Your task to perform on an android device: set the timer Image 0: 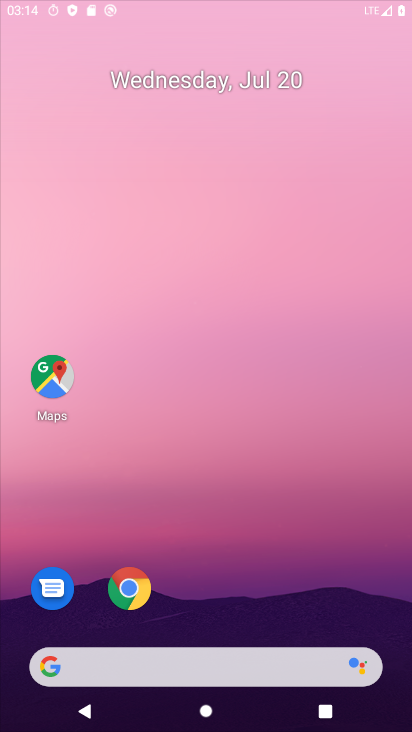
Step 0: drag from (160, 618) to (366, 9)
Your task to perform on an android device: set the timer Image 1: 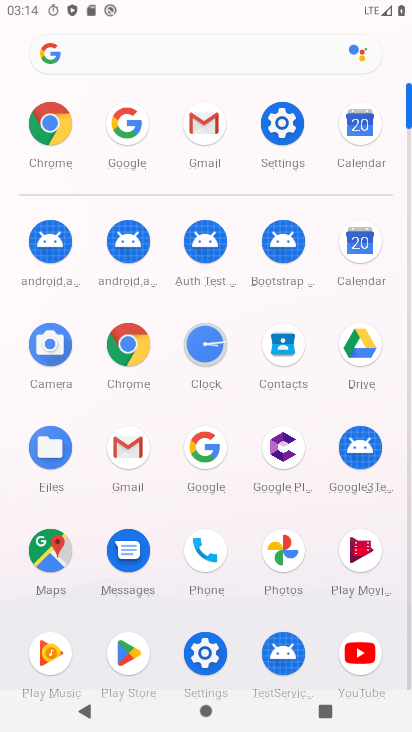
Step 1: click (203, 350)
Your task to perform on an android device: set the timer Image 2: 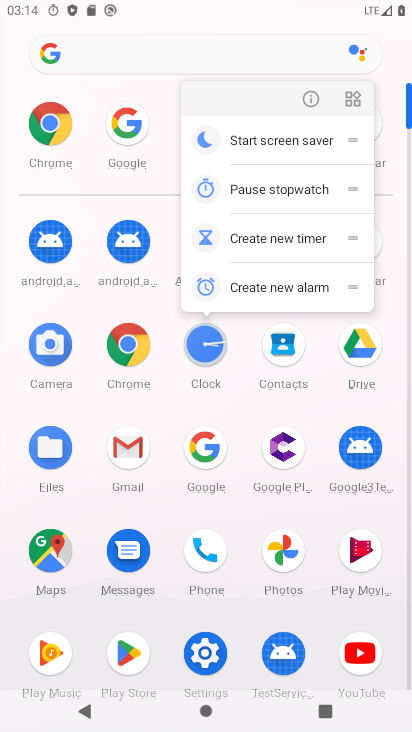
Step 2: click (306, 96)
Your task to perform on an android device: set the timer Image 3: 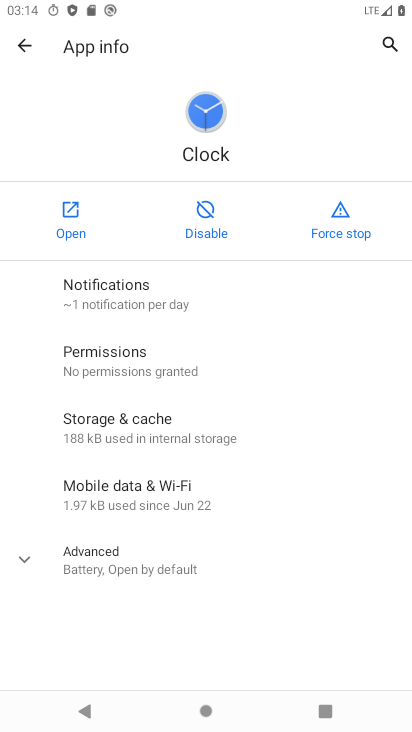
Step 3: click (75, 222)
Your task to perform on an android device: set the timer Image 4: 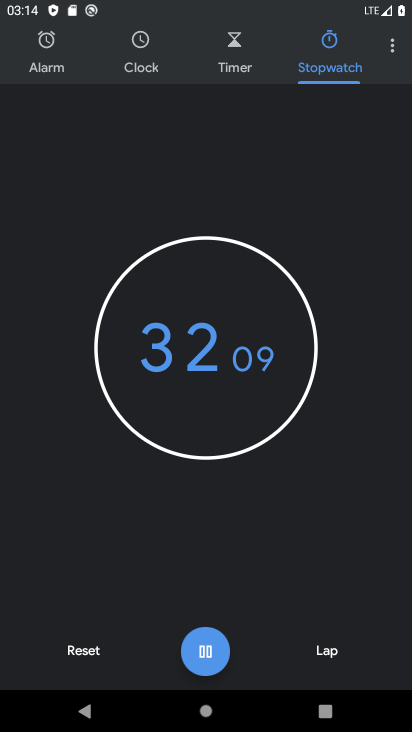
Step 4: click (76, 660)
Your task to perform on an android device: set the timer Image 5: 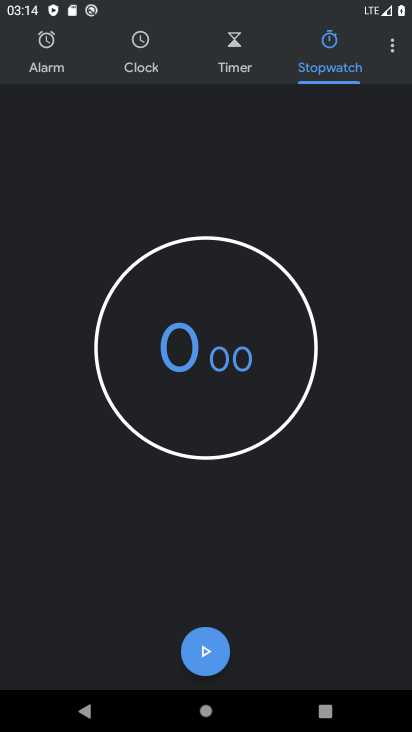
Step 5: click (240, 62)
Your task to perform on an android device: set the timer Image 6: 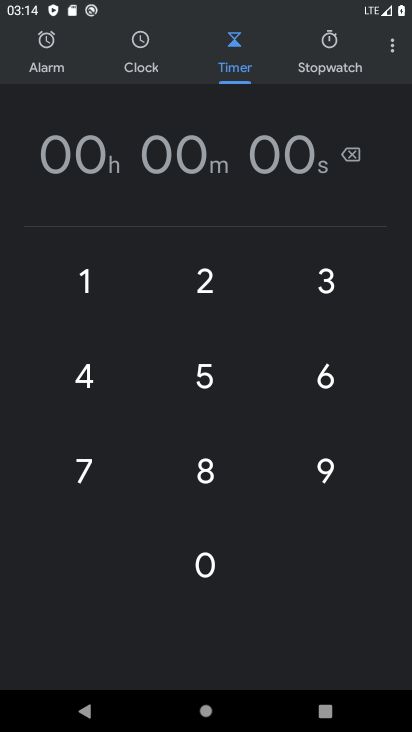
Step 6: click (209, 307)
Your task to perform on an android device: set the timer Image 7: 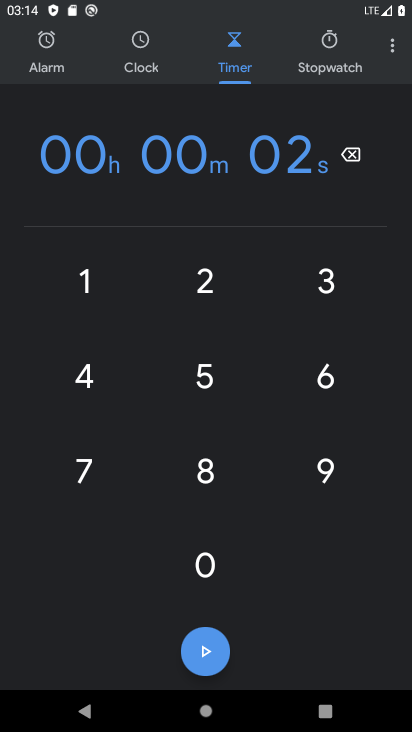
Step 7: click (314, 274)
Your task to perform on an android device: set the timer Image 8: 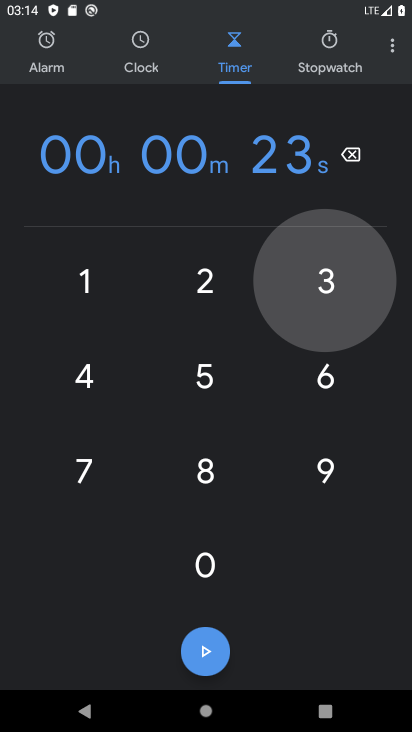
Step 8: click (218, 351)
Your task to perform on an android device: set the timer Image 9: 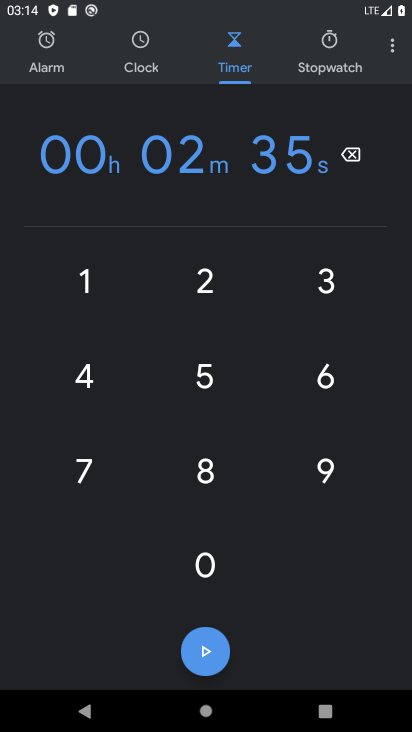
Step 9: click (198, 653)
Your task to perform on an android device: set the timer Image 10: 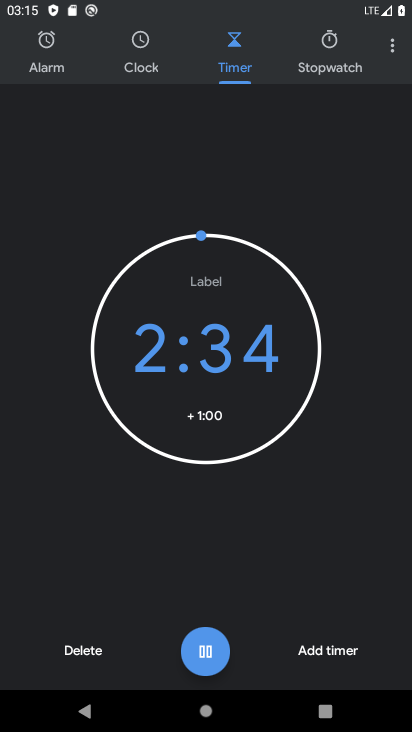
Step 10: task complete